Your task to perform on an android device: Add "alienware area 51" to the cart on costco.com Image 0: 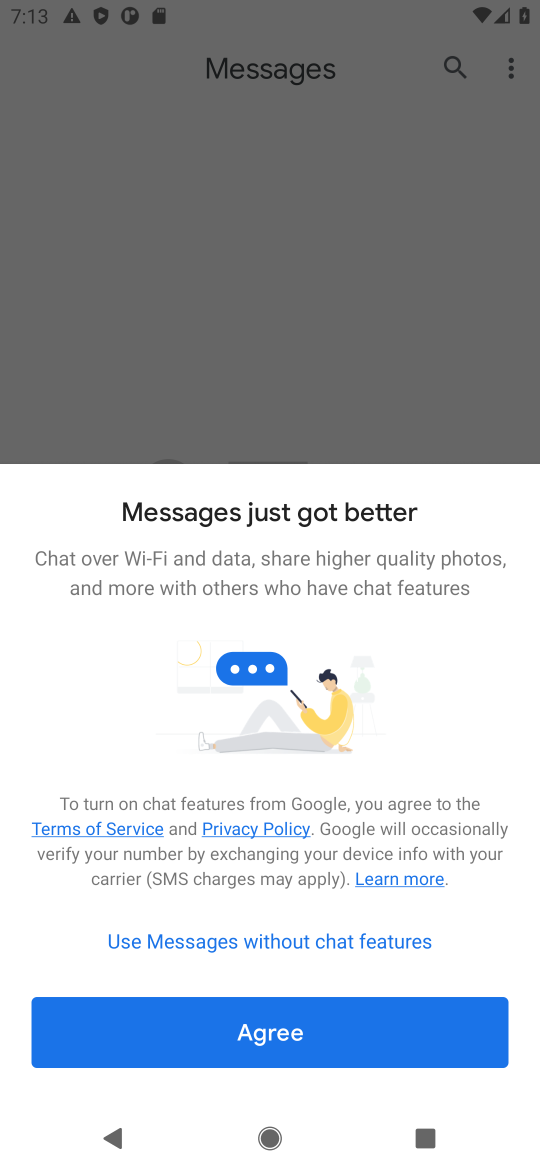
Step 0: press home button
Your task to perform on an android device: Add "alienware area 51" to the cart on costco.com Image 1: 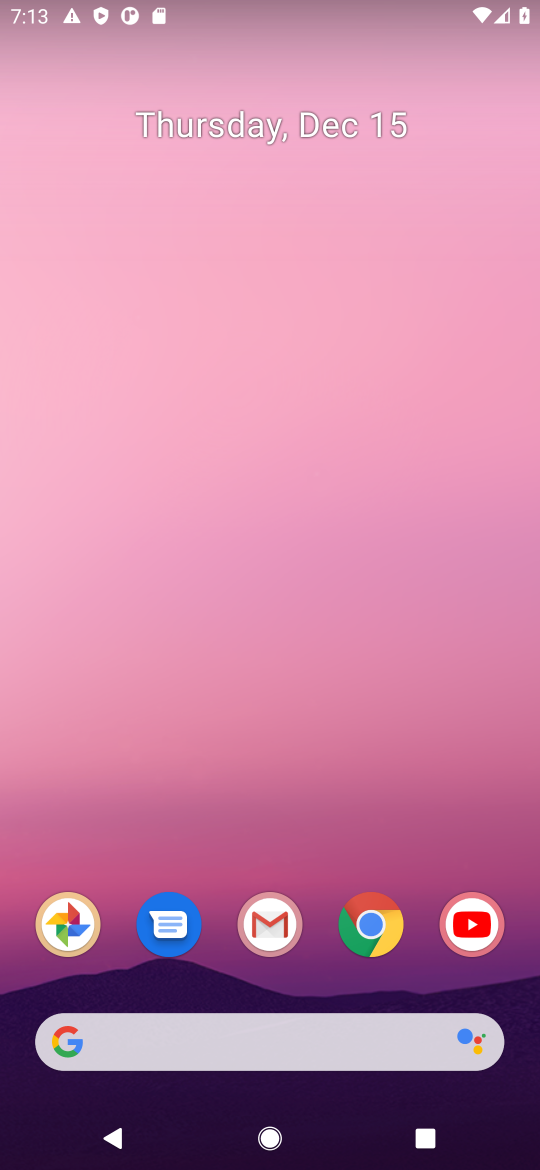
Step 1: click (368, 947)
Your task to perform on an android device: Add "alienware area 51" to the cart on costco.com Image 2: 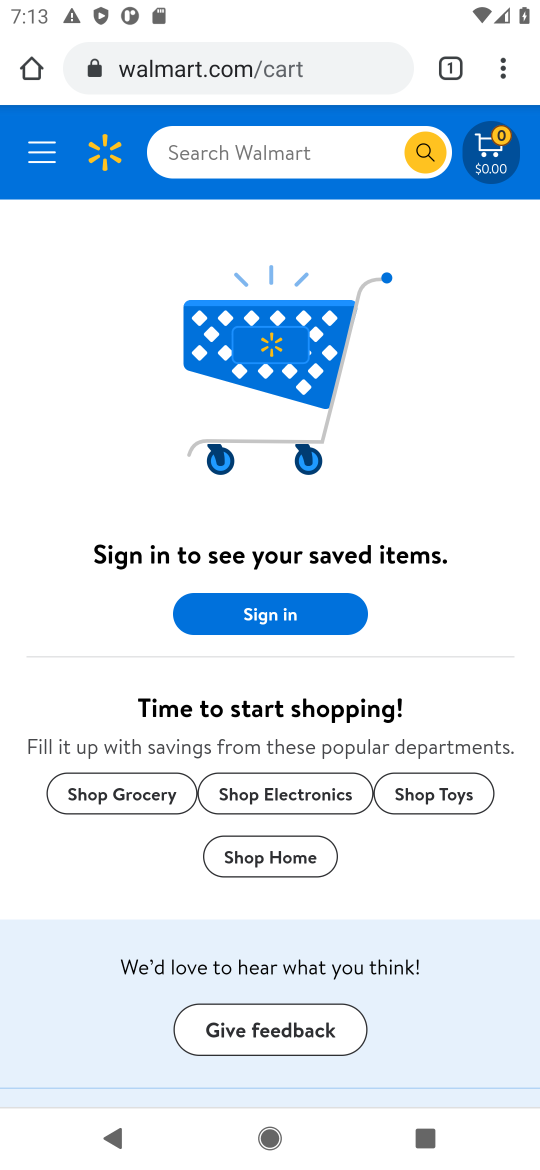
Step 2: click (217, 74)
Your task to perform on an android device: Add "alienware area 51" to the cart on costco.com Image 3: 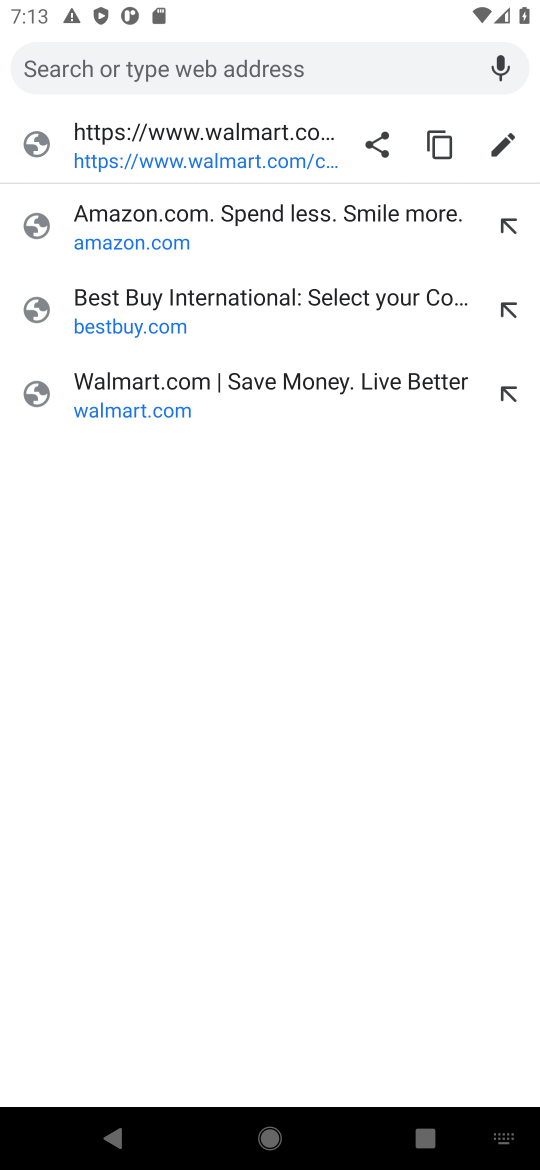
Step 3: type "costco"
Your task to perform on an android device: Add "alienware area 51" to the cart on costco.com Image 4: 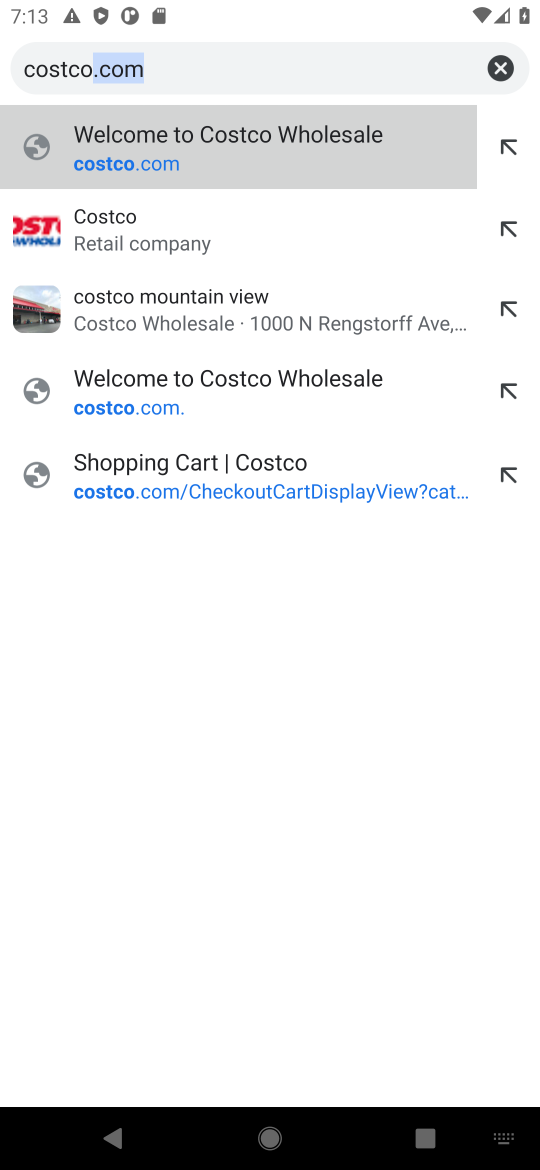
Step 4: click (174, 212)
Your task to perform on an android device: Add "alienware area 51" to the cart on costco.com Image 5: 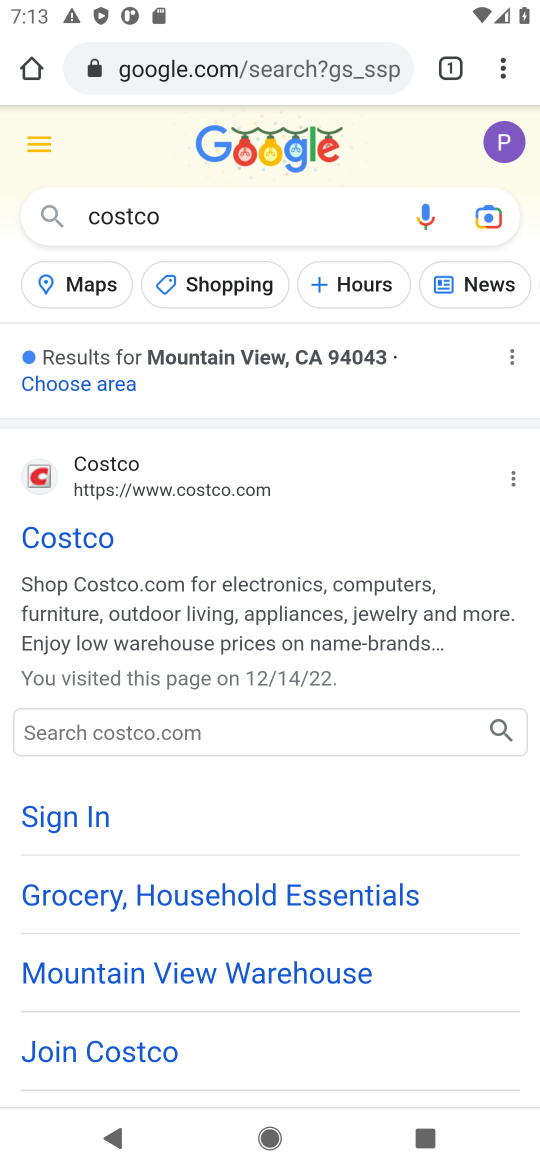
Step 5: click (103, 522)
Your task to perform on an android device: Add "alienware area 51" to the cart on costco.com Image 6: 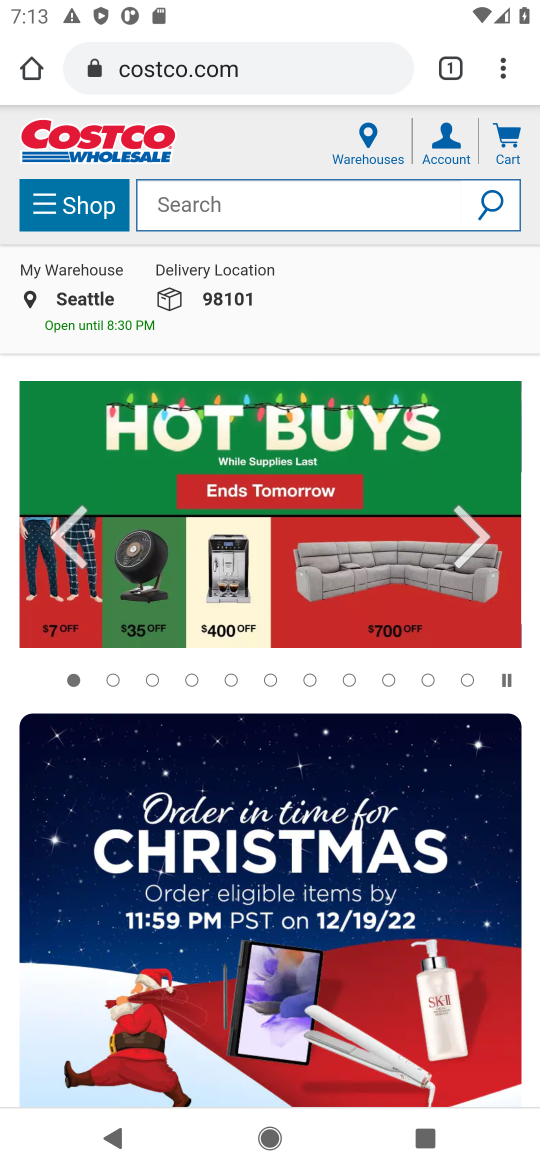
Step 6: click (171, 196)
Your task to perform on an android device: Add "alienware area 51" to the cart on costco.com Image 7: 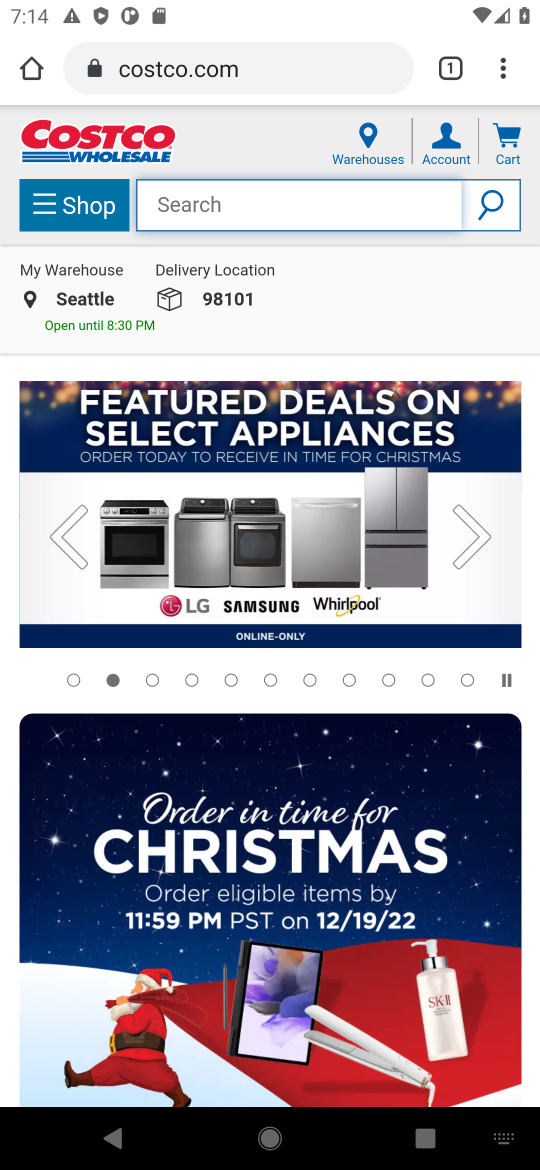
Step 7: type "alienware 51"
Your task to perform on an android device: Add "alienware area 51" to the cart on costco.com Image 8: 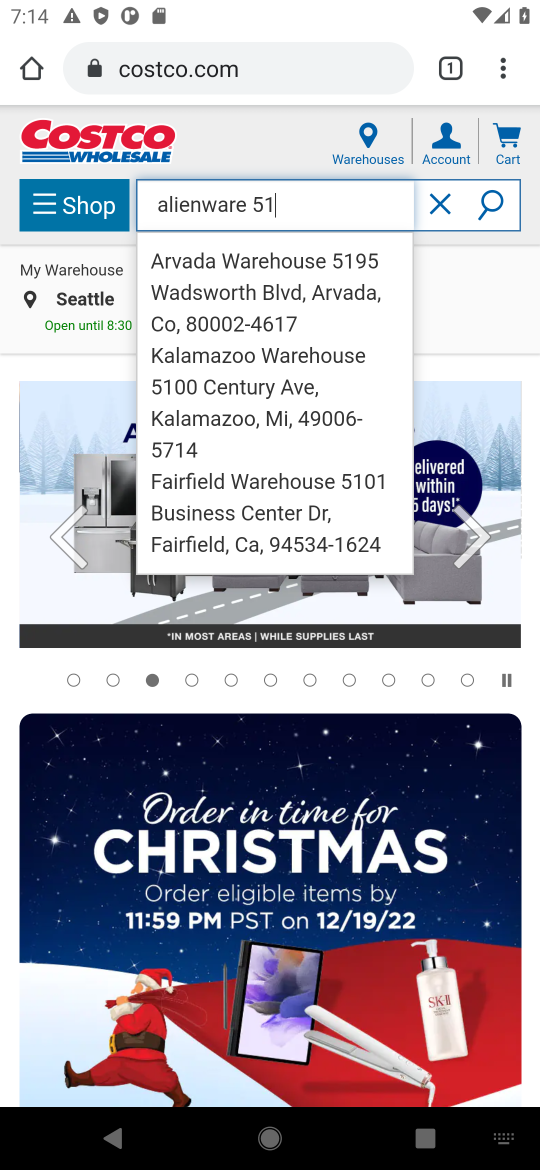
Step 8: click (479, 205)
Your task to perform on an android device: Add "alienware area 51" to the cart on costco.com Image 9: 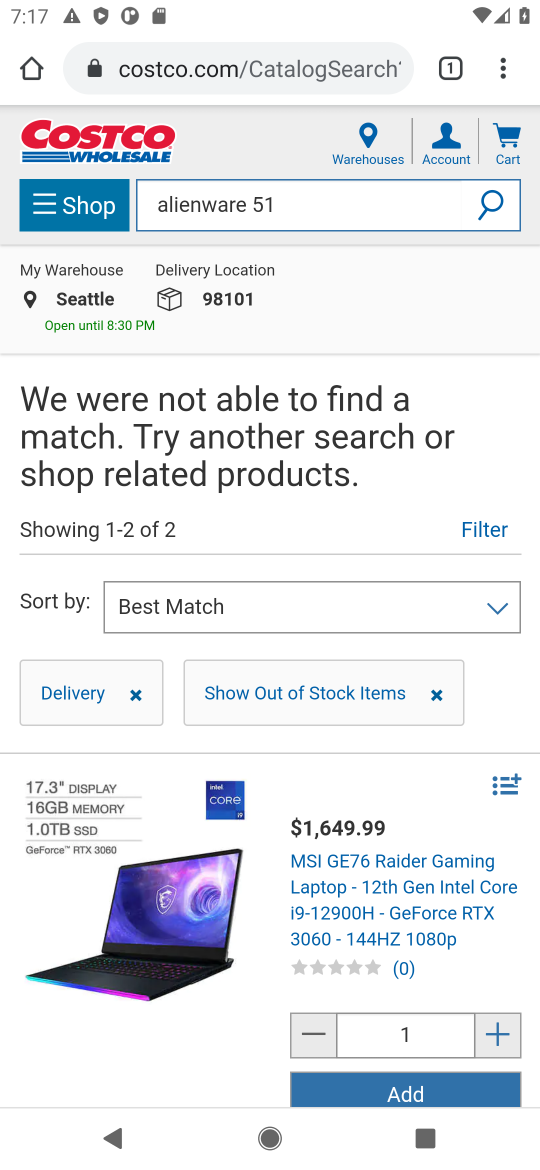
Step 9: task complete